Your task to perform on an android device: Go to notification settings Image 0: 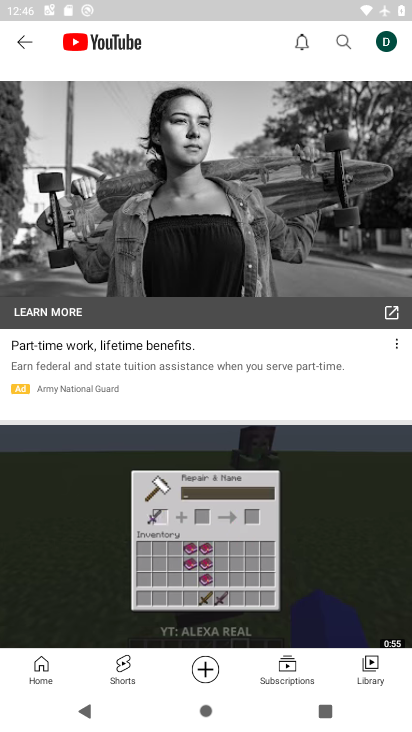
Step 0: press home button
Your task to perform on an android device: Go to notification settings Image 1: 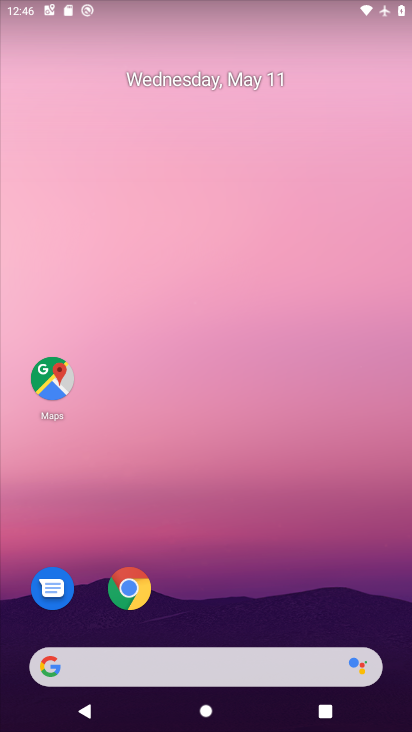
Step 1: drag from (231, 643) to (266, 317)
Your task to perform on an android device: Go to notification settings Image 2: 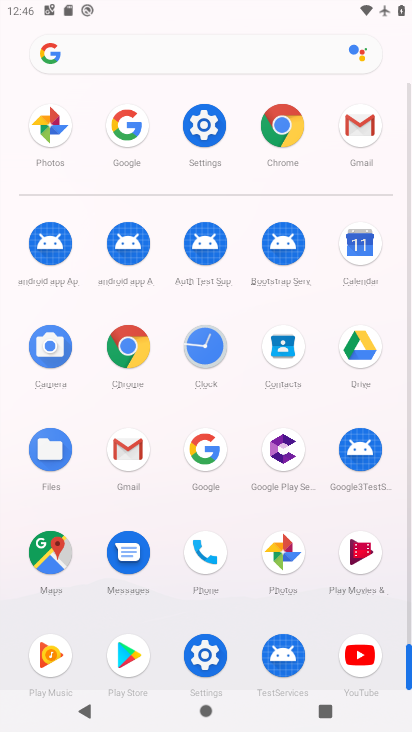
Step 2: click (208, 131)
Your task to perform on an android device: Go to notification settings Image 3: 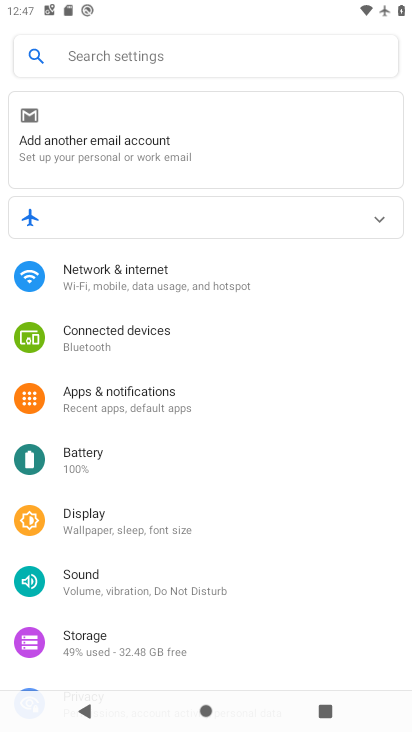
Step 3: click (111, 396)
Your task to perform on an android device: Go to notification settings Image 4: 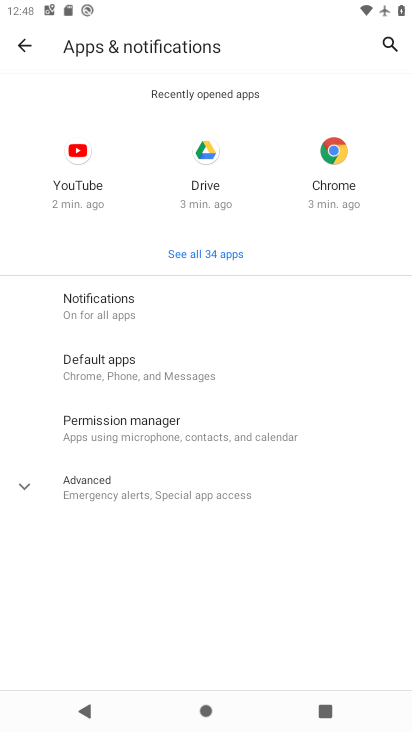
Step 4: task complete